Your task to perform on an android device: turn off airplane mode Image 0: 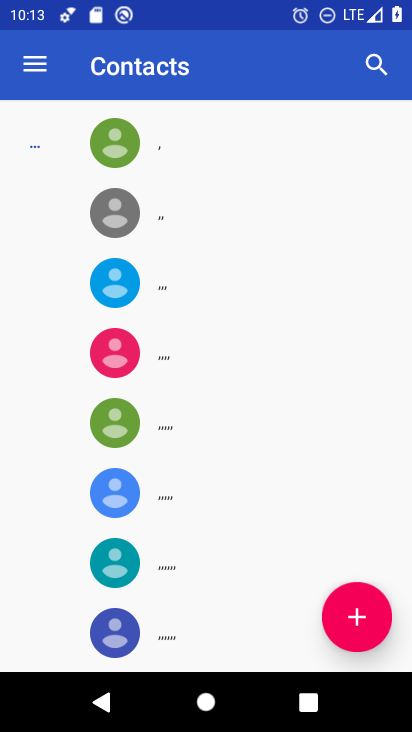
Step 0: press home button
Your task to perform on an android device: turn off airplane mode Image 1: 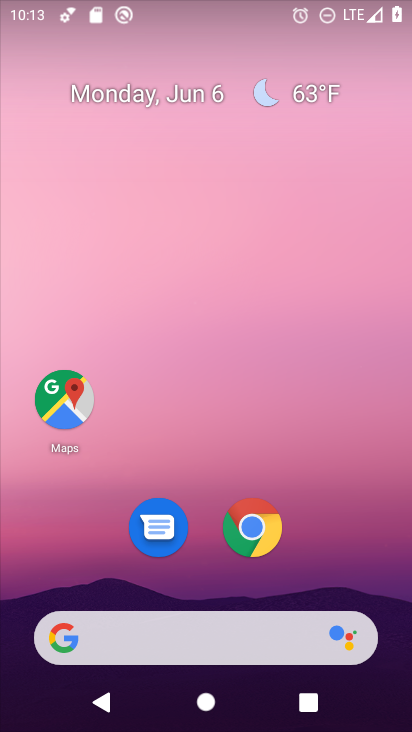
Step 1: drag from (333, 537) to (359, 150)
Your task to perform on an android device: turn off airplane mode Image 2: 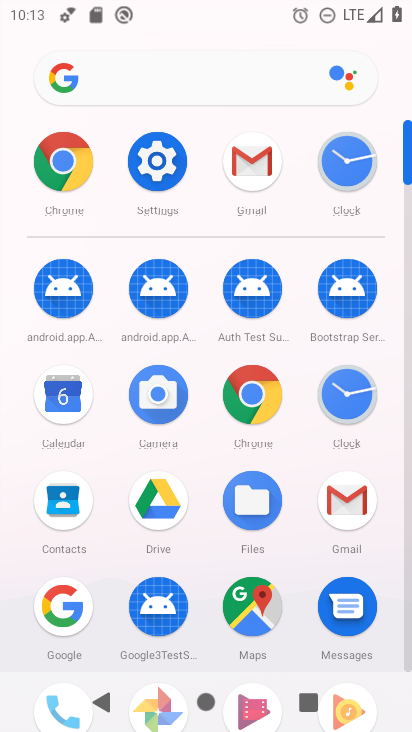
Step 2: click (167, 164)
Your task to perform on an android device: turn off airplane mode Image 3: 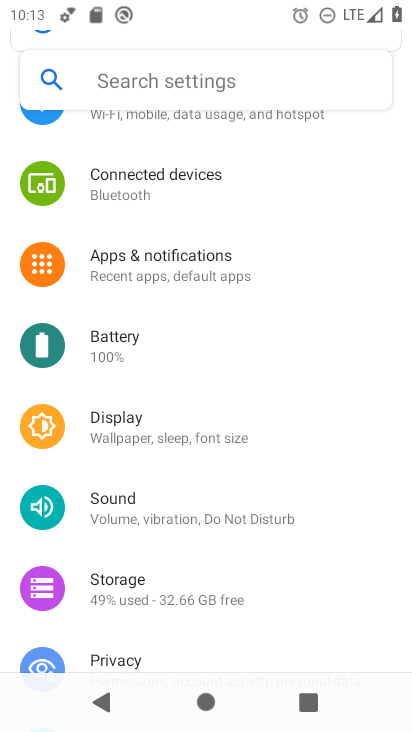
Step 3: drag from (340, 243) to (339, 375)
Your task to perform on an android device: turn off airplane mode Image 4: 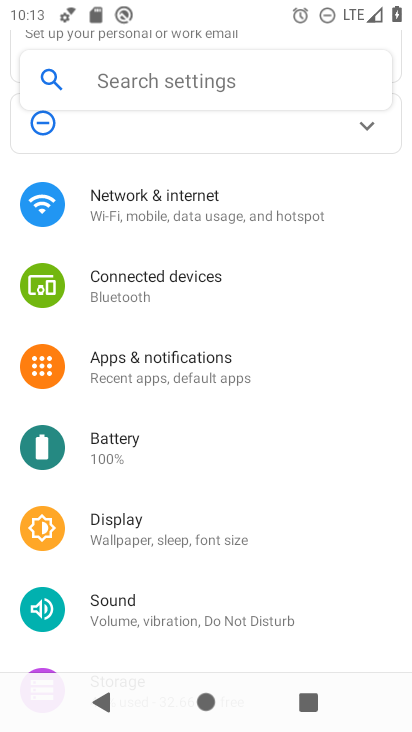
Step 4: drag from (339, 233) to (336, 450)
Your task to perform on an android device: turn off airplane mode Image 5: 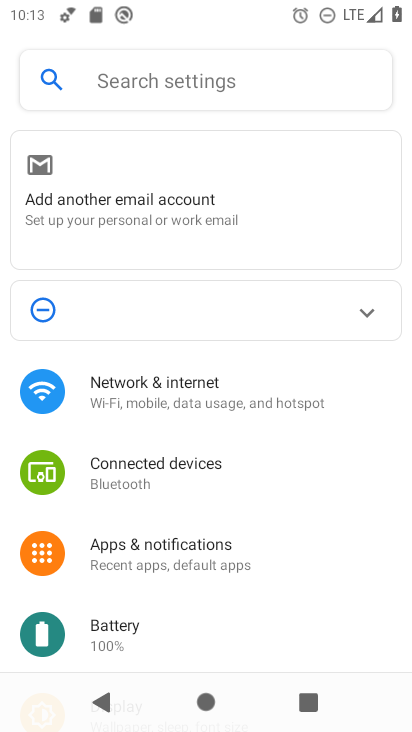
Step 5: click (246, 392)
Your task to perform on an android device: turn off airplane mode Image 6: 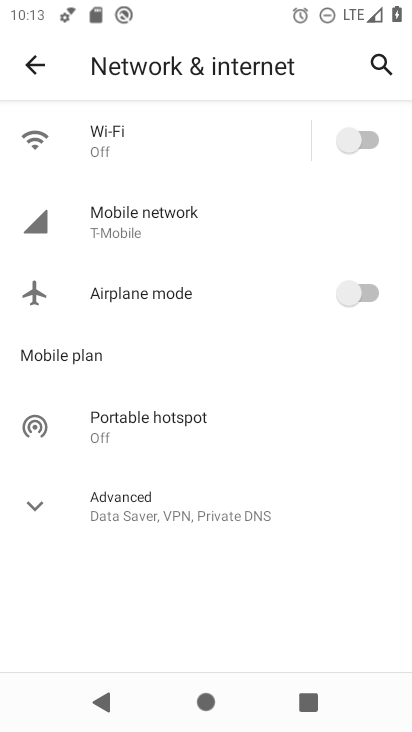
Step 6: task complete